Your task to perform on an android device: move a message to another label in the gmail app Image 0: 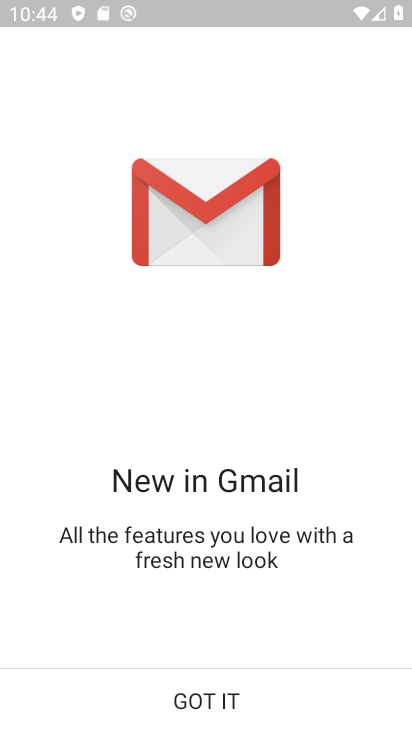
Step 0: click (159, 705)
Your task to perform on an android device: move a message to another label in the gmail app Image 1: 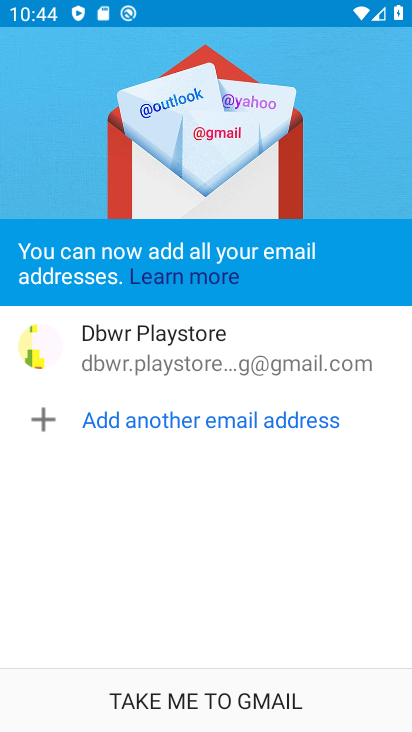
Step 1: click (159, 705)
Your task to perform on an android device: move a message to another label in the gmail app Image 2: 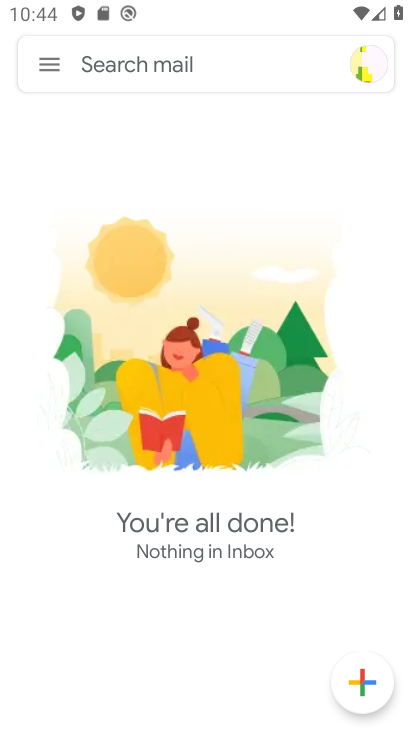
Step 2: task complete